Your task to perform on an android device: turn on javascript in the chrome app Image 0: 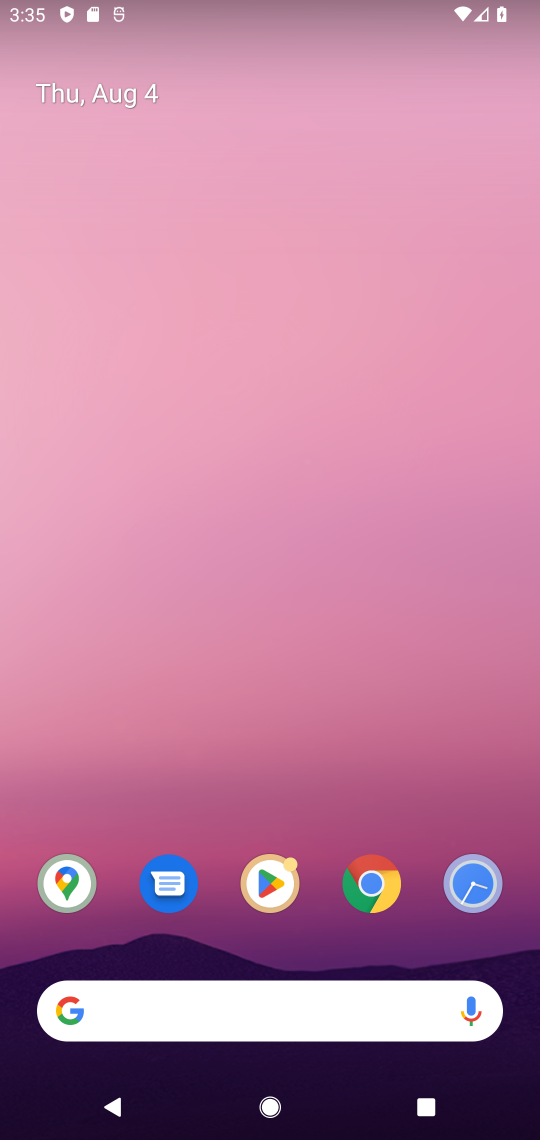
Step 0: drag from (451, 808) to (228, 17)
Your task to perform on an android device: turn on javascript in the chrome app Image 1: 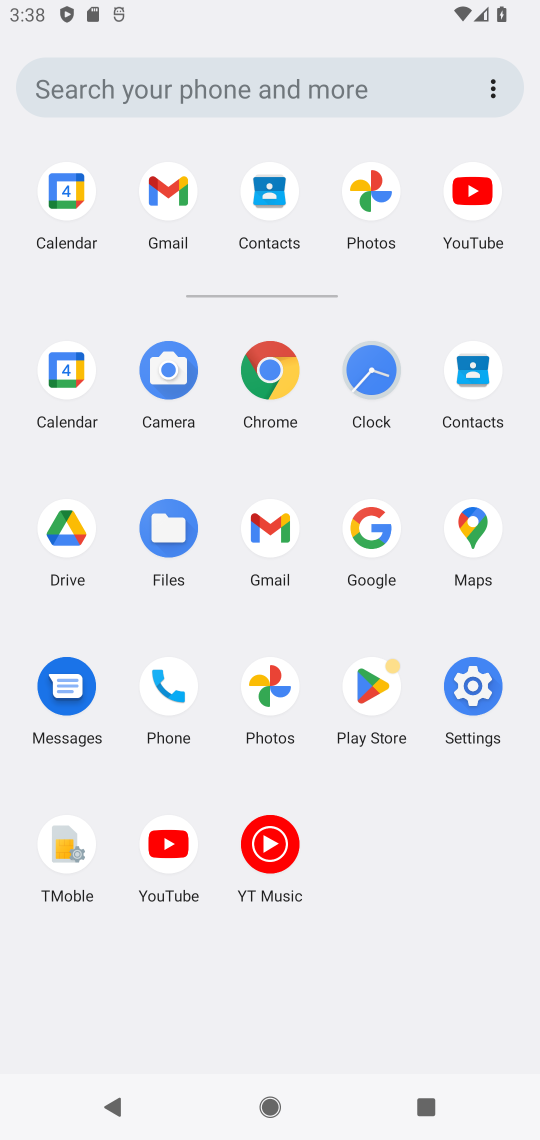
Step 1: click (277, 397)
Your task to perform on an android device: turn on javascript in the chrome app Image 2: 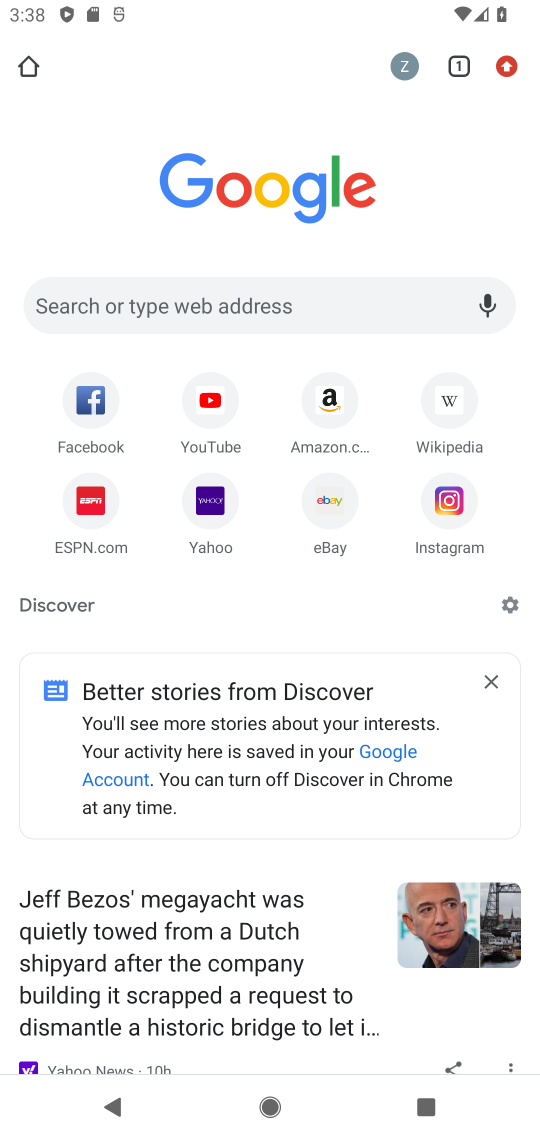
Step 2: click (510, 73)
Your task to perform on an android device: turn on javascript in the chrome app Image 3: 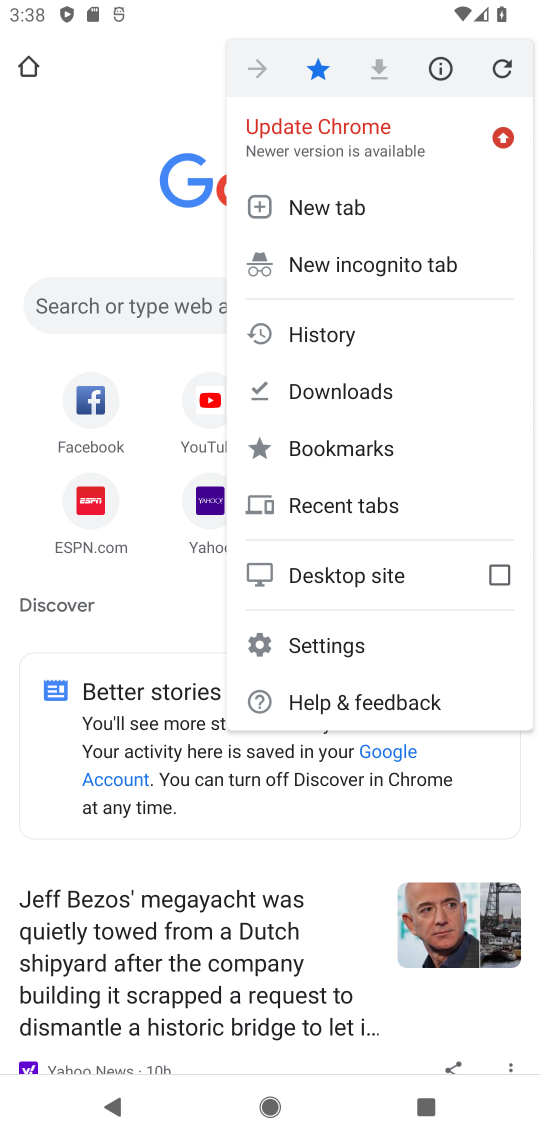
Step 3: click (310, 644)
Your task to perform on an android device: turn on javascript in the chrome app Image 4: 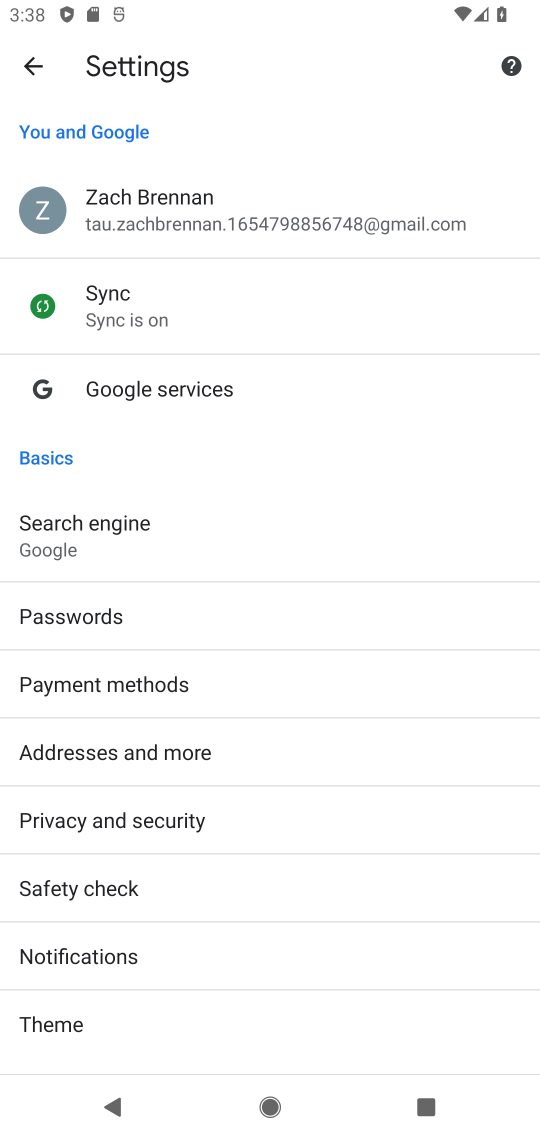
Step 4: drag from (204, 947) to (90, 263)
Your task to perform on an android device: turn on javascript in the chrome app Image 5: 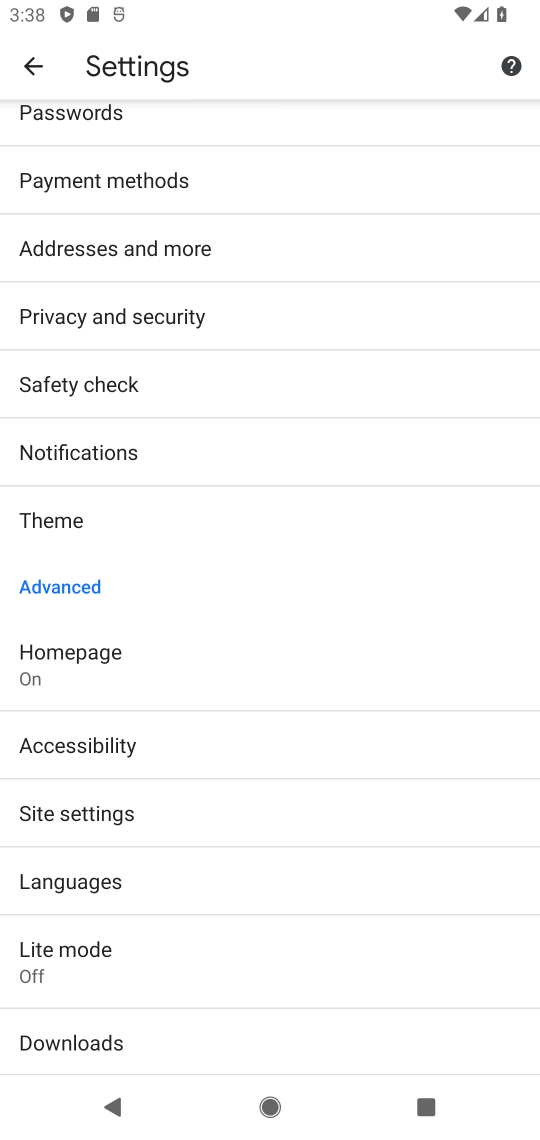
Step 5: click (106, 804)
Your task to perform on an android device: turn on javascript in the chrome app Image 6: 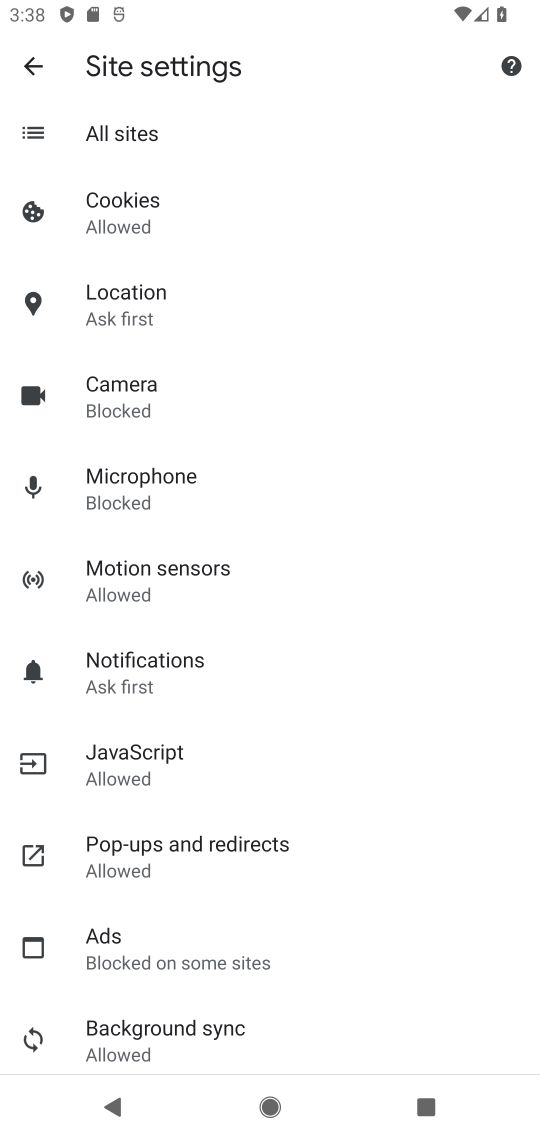
Step 6: click (135, 764)
Your task to perform on an android device: turn on javascript in the chrome app Image 7: 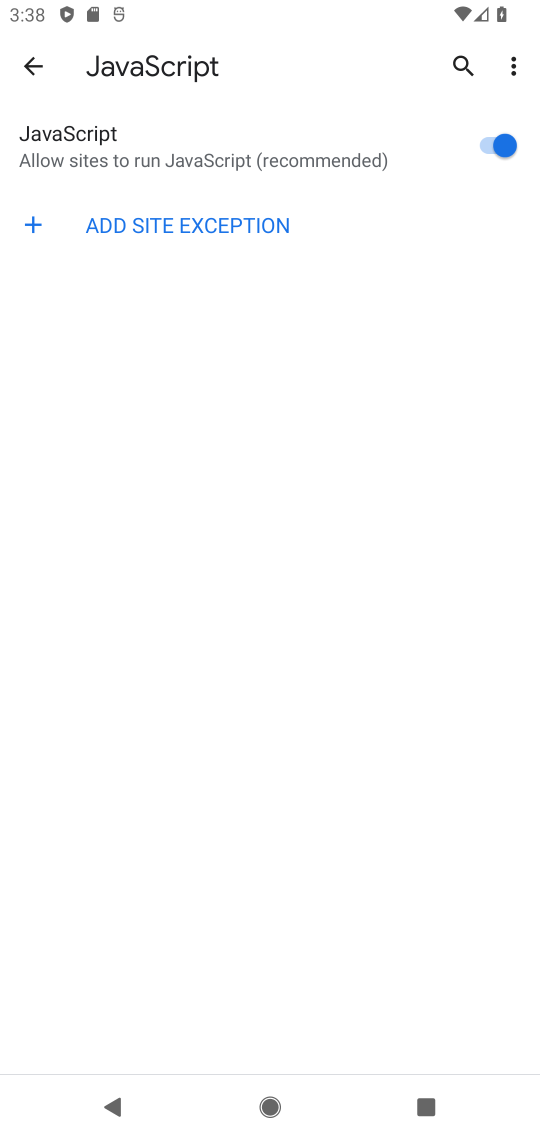
Step 7: task complete